Your task to perform on an android device: Open Chrome and go to settings Image 0: 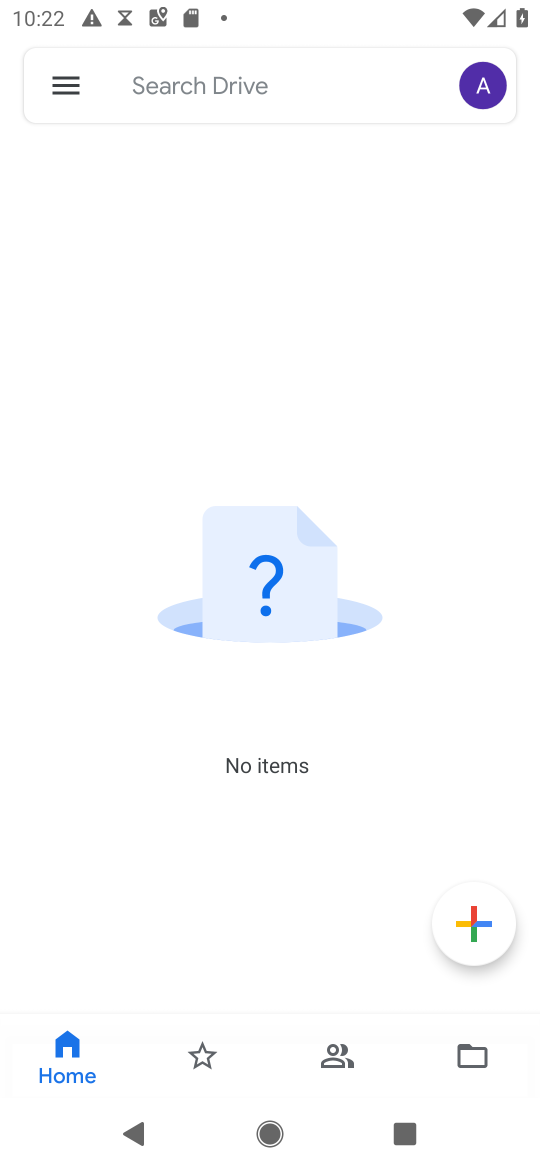
Step 0: press home button
Your task to perform on an android device: Open Chrome and go to settings Image 1: 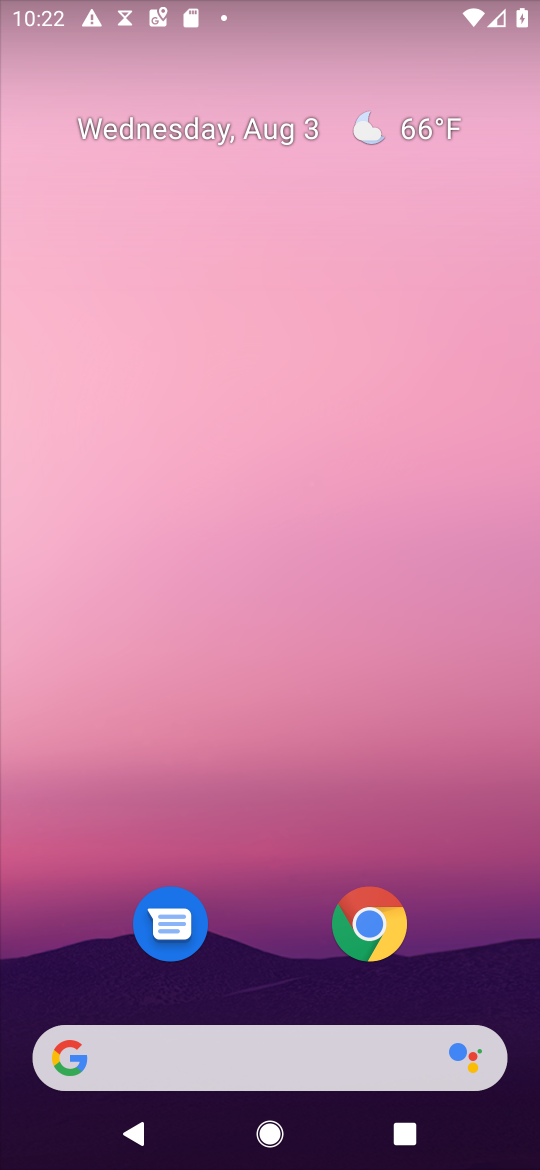
Step 1: drag from (267, 985) to (295, 5)
Your task to perform on an android device: Open Chrome and go to settings Image 2: 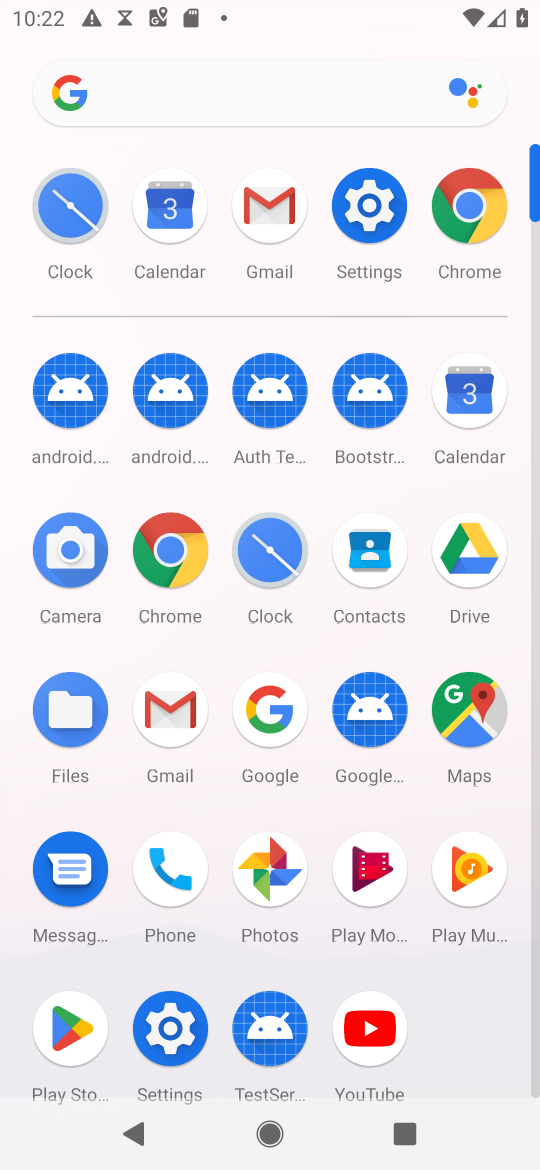
Step 2: click (472, 201)
Your task to perform on an android device: Open Chrome and go to settings Image 3: 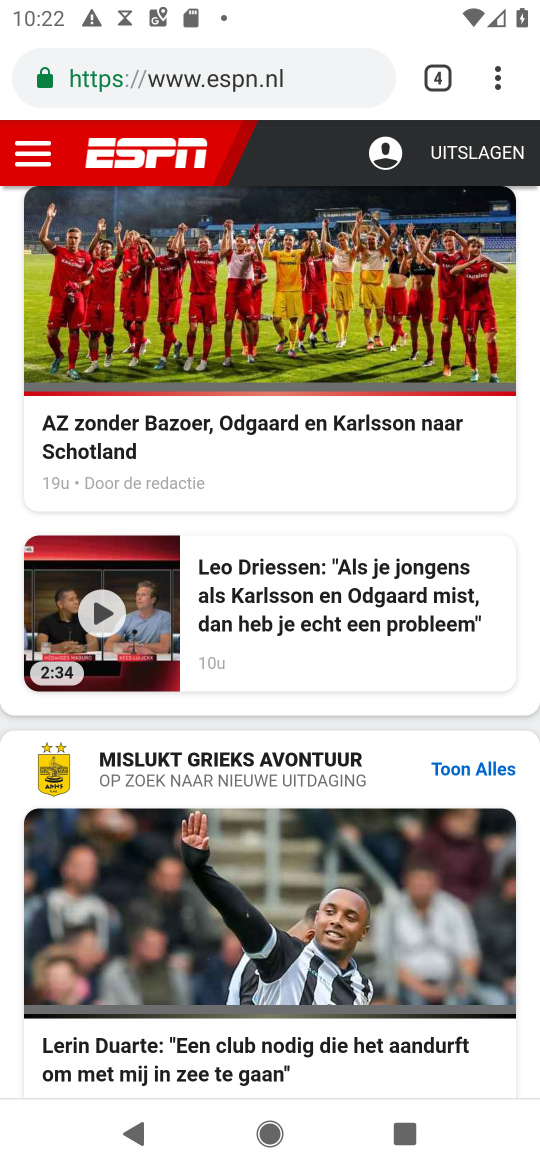
Step 3: click (496, 65)
Your task to perform on an android device: Open Chrome and go to settings Image 4: 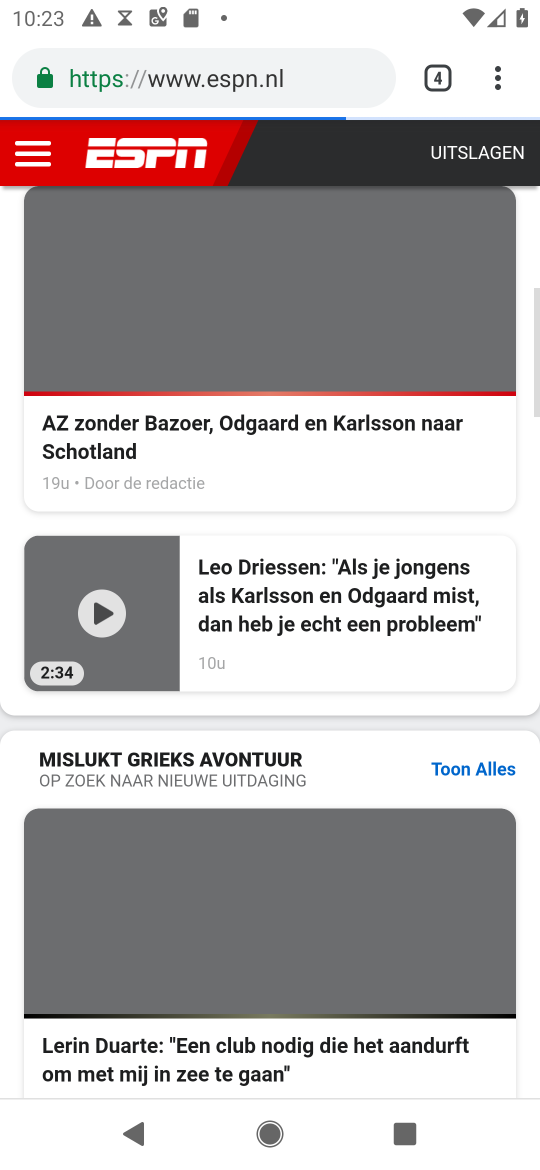
Step 4: click (502, 76)
Your task to perform on an android device: Open Chrome and go to settings Image 5: 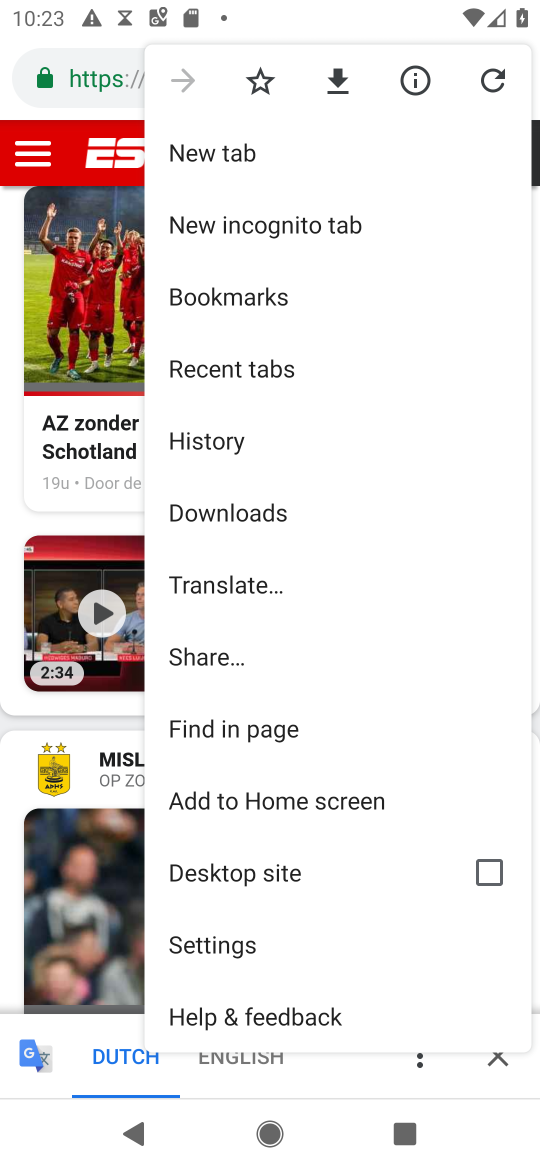
Step 5: click (265, 943)
Your task to perform on an android device: Open Chrome and go to settings Image 6: 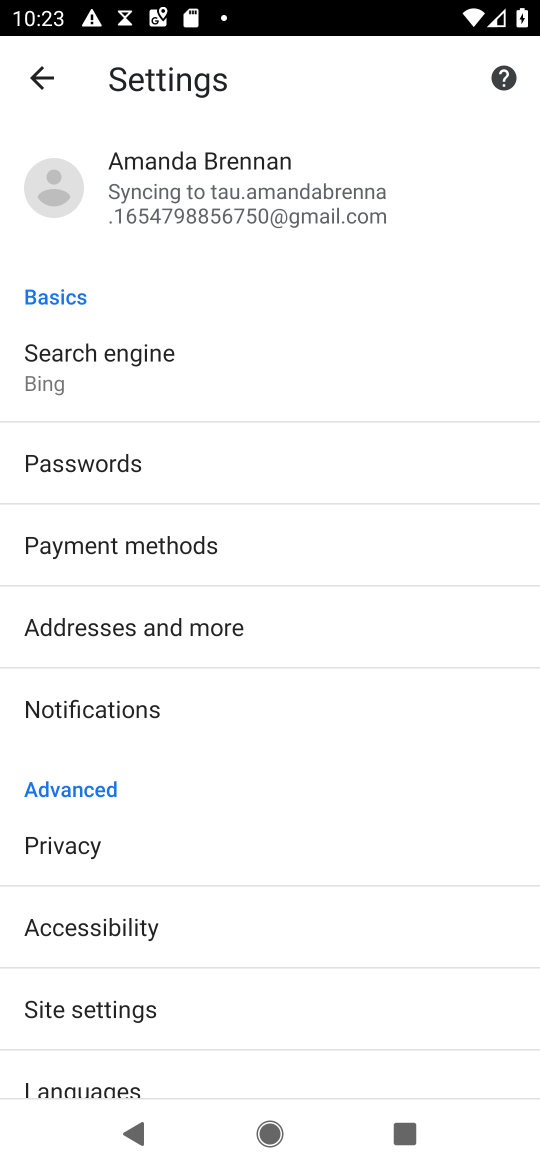
Step 6: task complete